Your task to perform on an android device: change the clock display to analog Image 0: 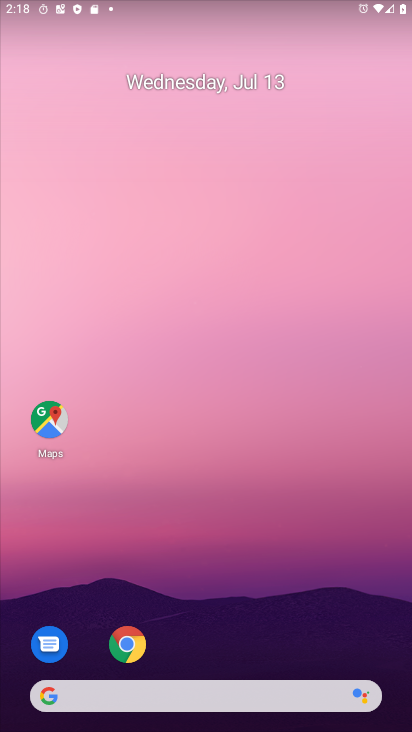
Step 0: drag from (286, 628) to (252, 102)
Your task to perform on an android device: change the clock display to analog Image 1: 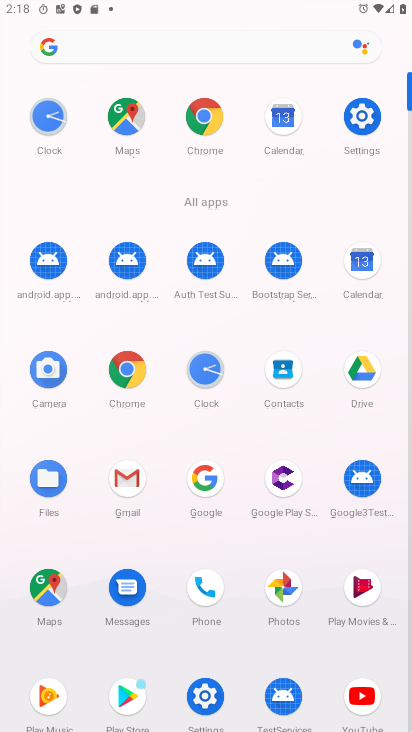
Step 1: click (187, 378)
Your task to perform on an android device: change the clock display to analog Image 2: 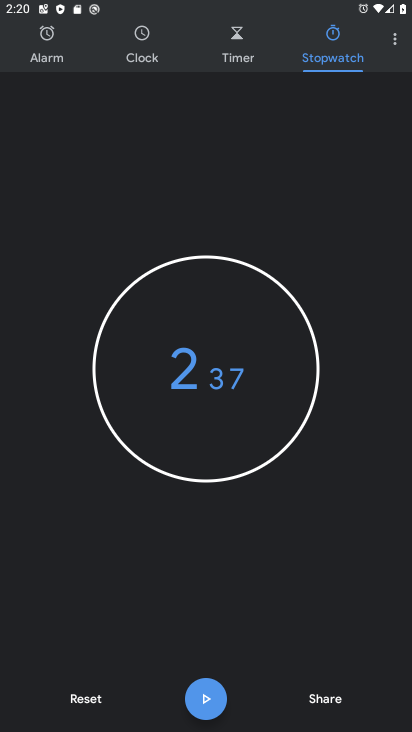
Step 2: click (390, 39)
Your task to perform on an android device: change the clock display to analog Image 3: 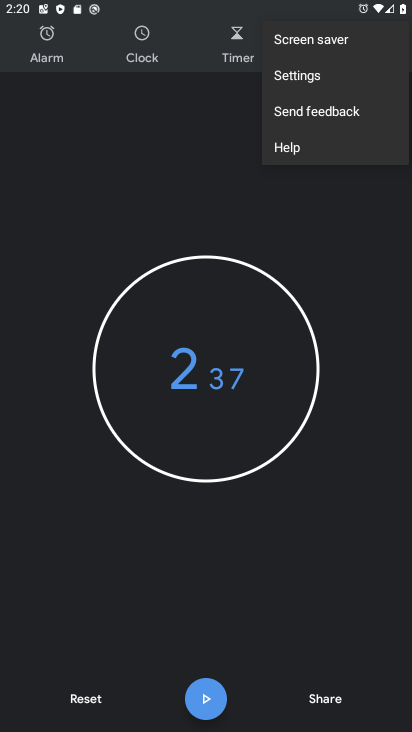
Step 3: click (287, 78)
Your task to perform on an android device: change the clock display to analog Image 4: 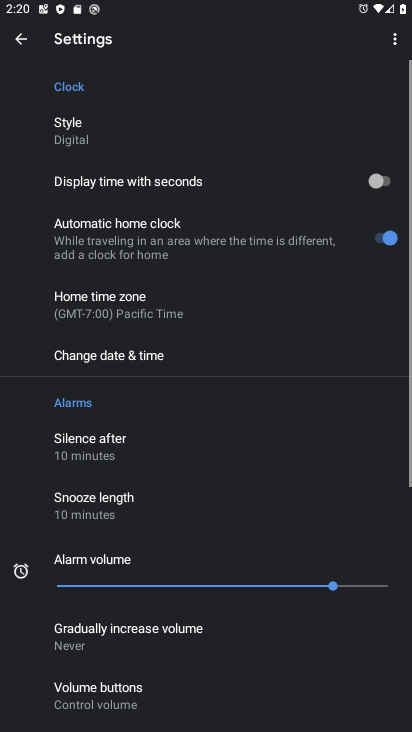
Step 4: click (105, 126)
Your task to perform on an android device: change the clock display to analog Image 5: 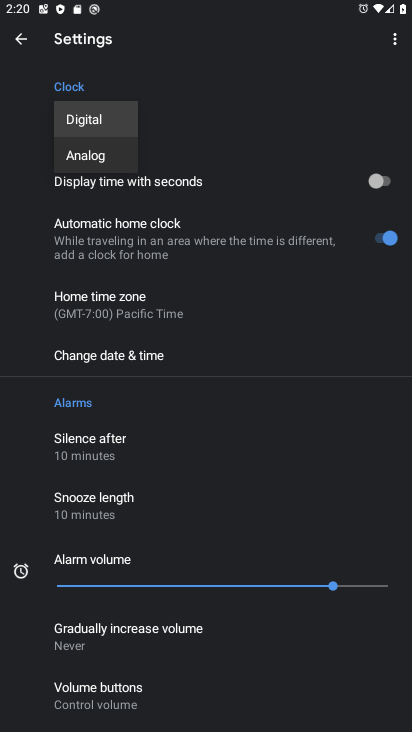
Step 5: click (74, 150)
Your task to perform on an android device: change the clock display to analog Image 6: 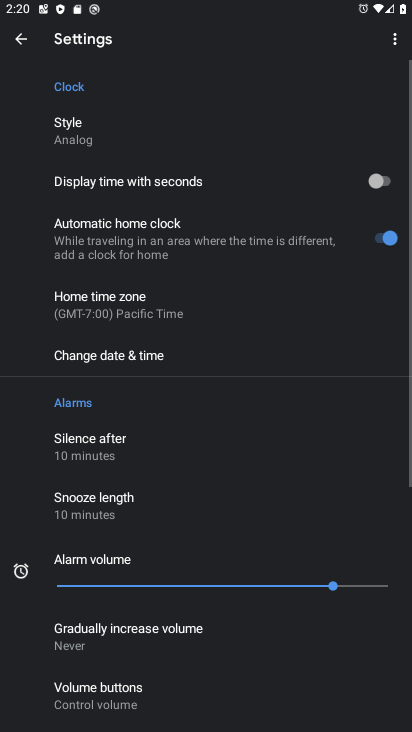
Step 6: task complete